Your task to perform on an android device: Open notification settings Image 0: 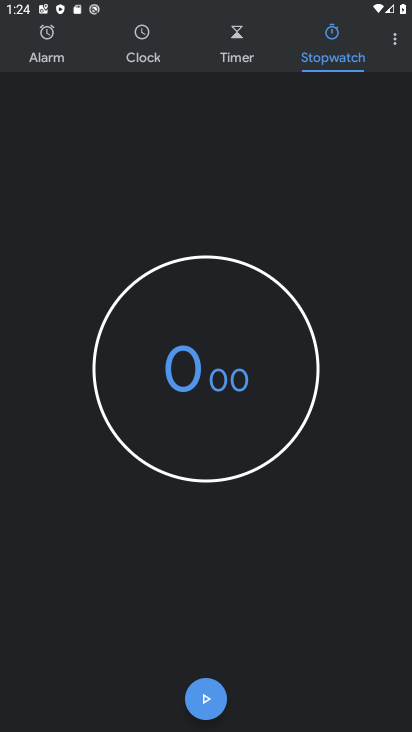
Step 0: press home button
Your task to perform on an android device: Open notification settings Image 1: 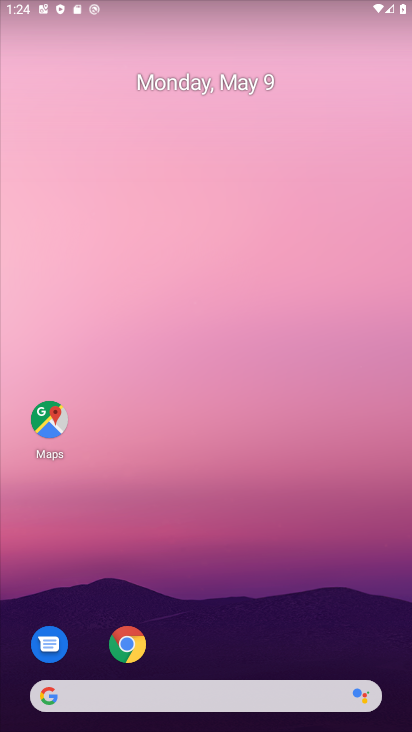
Step 1: drag from (287, 612) to (276, 137)
Your task to perform on an android device: Open notification settings Image 2: 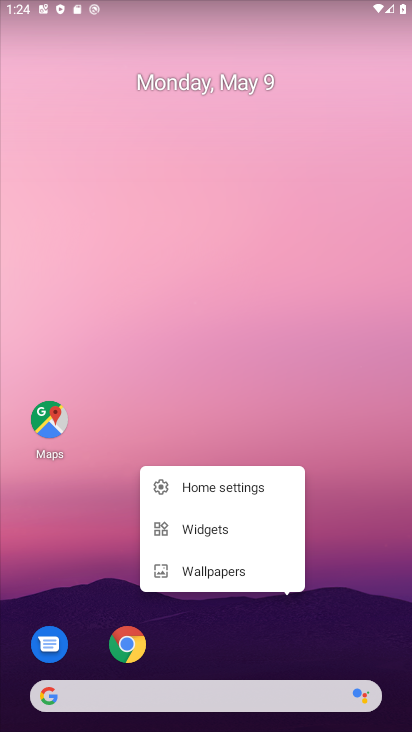
Step 2: drag from (340, 599) to (341, 171)
Your task to perform on an android device: Open notification settings Image 3: 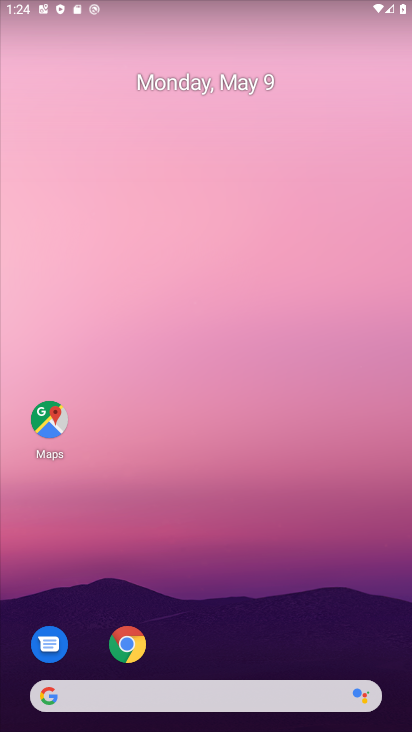
Step 3: drag from (206, 614) to (229, 160)
Your task to perform on an android device: Open notification settings Image 4: 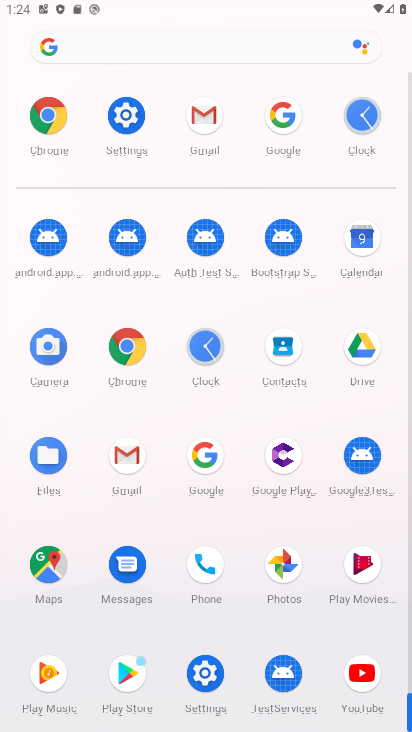
Step 4: click (203, 682)
Your task to perform on an android device: Open notification settings Image 5: 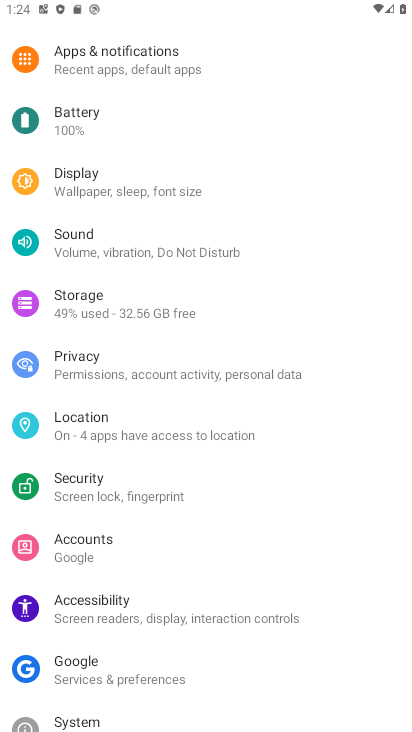
Step 5: click (100, 74)
Your task to perform on an android device: Open notification settings Image 6: 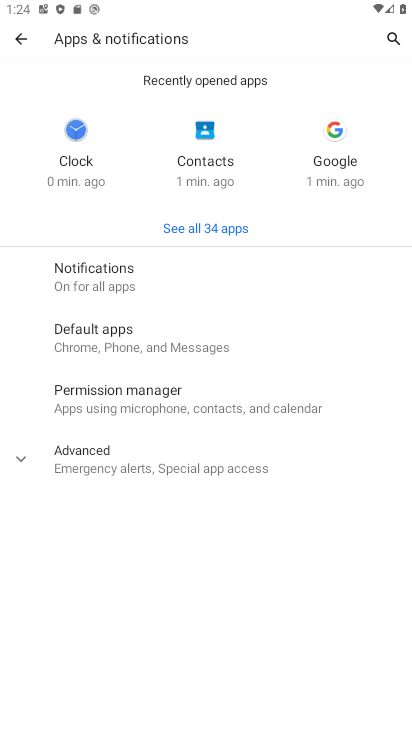
Step 6: click (100, 294)
Your task to perform on an android device: Open notification settings Image 7: 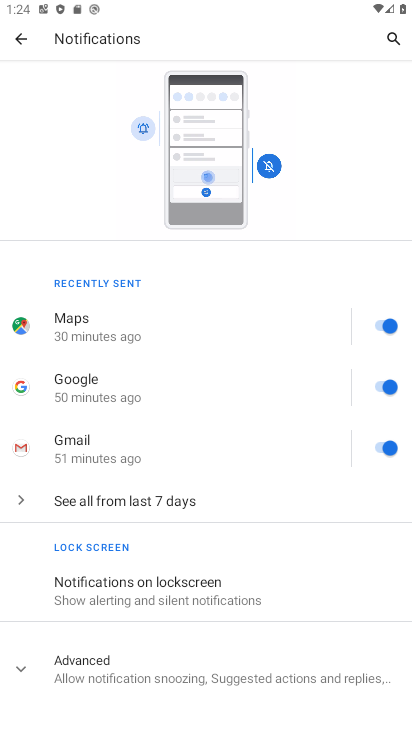
Step 7: task complete